Your task to perform on an android device: Open the calendar app, open the side menu, and click the "Day" option Image 0: 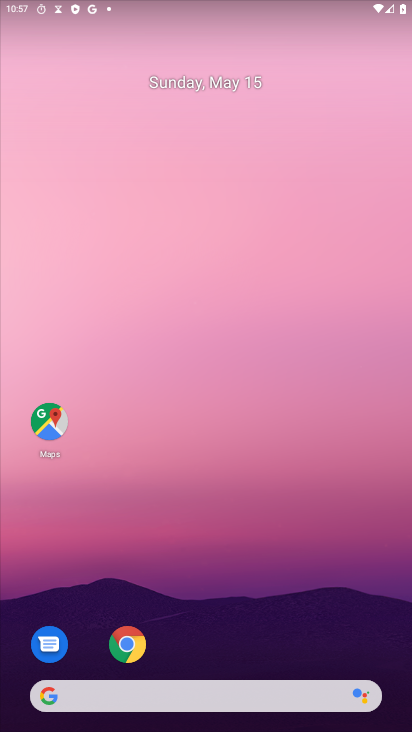
Step 0: drag from (237, 652) to (239, 393)
Your task to perform on an android device: Open the calendar app, open the side menu, and click the "Day" option Image 1: 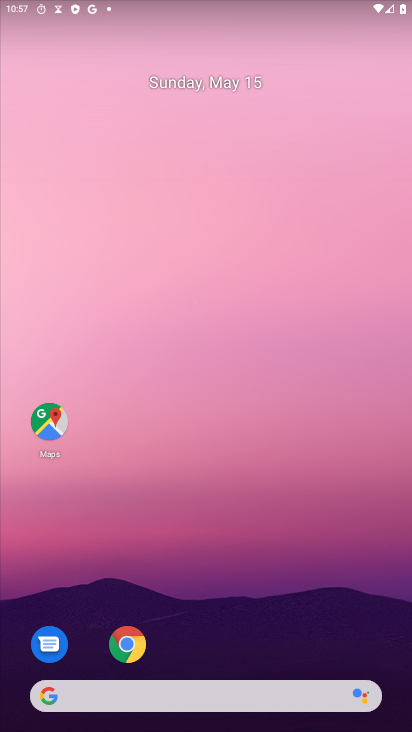
Step 1: drag from (240, 600) to (237, 305)
Your task to perform on an android device: Open the calendar app, open the side menu, and click the "Day" option Image 2: 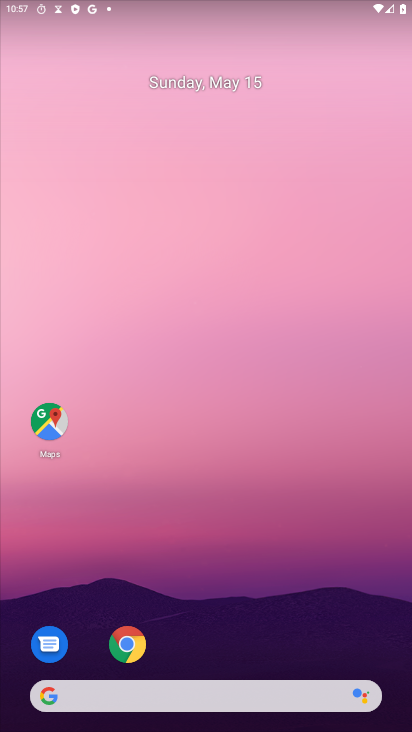
Step 2: drag from (212, 648) to (236, 222)
Your task to perform on an android device: Open the calendar app, open the side menu, and click the "Day" option Image 3: 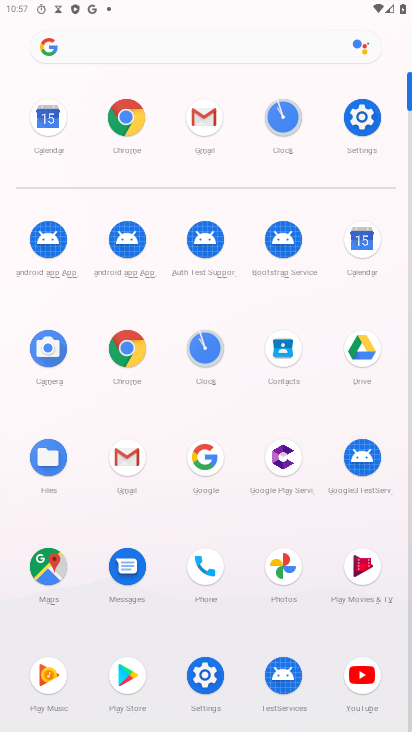
Step 3: click (364, 243)
Your task to perform on an android device: Open the calendar app, open the side menu, and click the "Day" option Image 4: 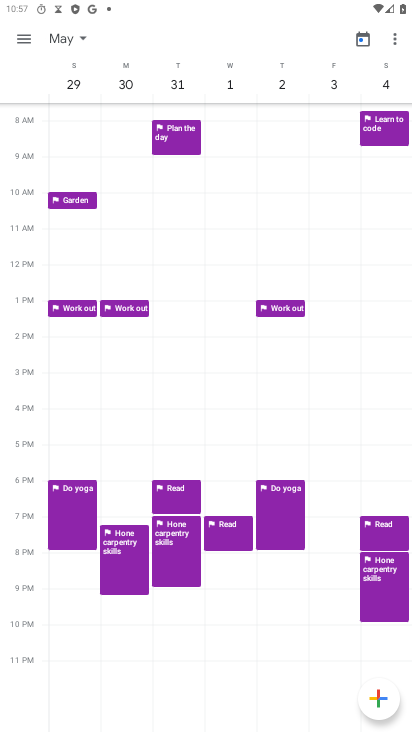
Step 4: click (16, 32)
Your task to perform on an android device: Open the calendar app, open the side menu, and click the "Day" option Image 5: 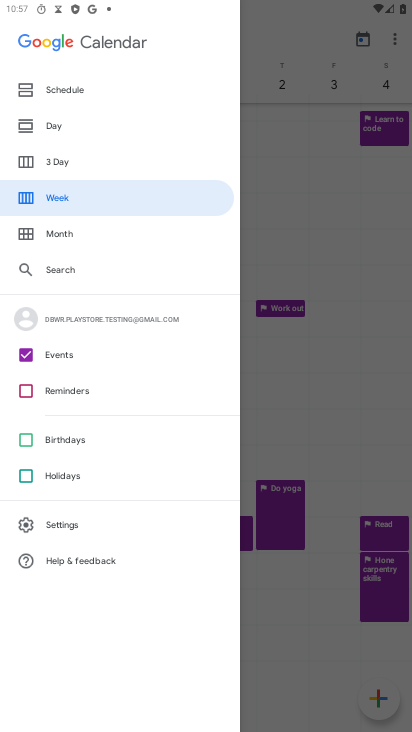
Step 5: click (81, 122)
Your task to perform on an android device: Open the calendar app, open the side menu, and click the "Day" option Image 6: 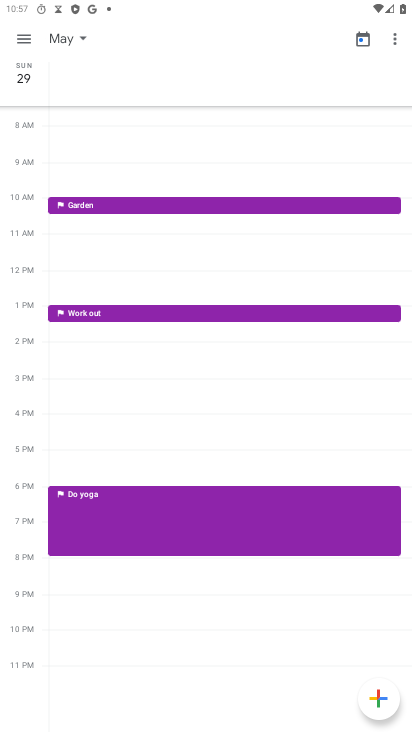
Step 6: click (81, 122)
Your task to perform on an android device: Open the calendar app, open the side menu, and click the "Day" option Image 7: 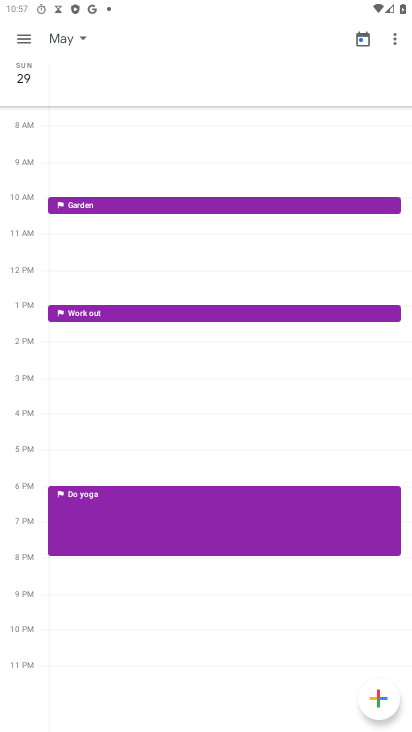
Step 7: task complete